Your task to perform on an android device: uninstall "Life360: Find Family & Friends" Image 0: 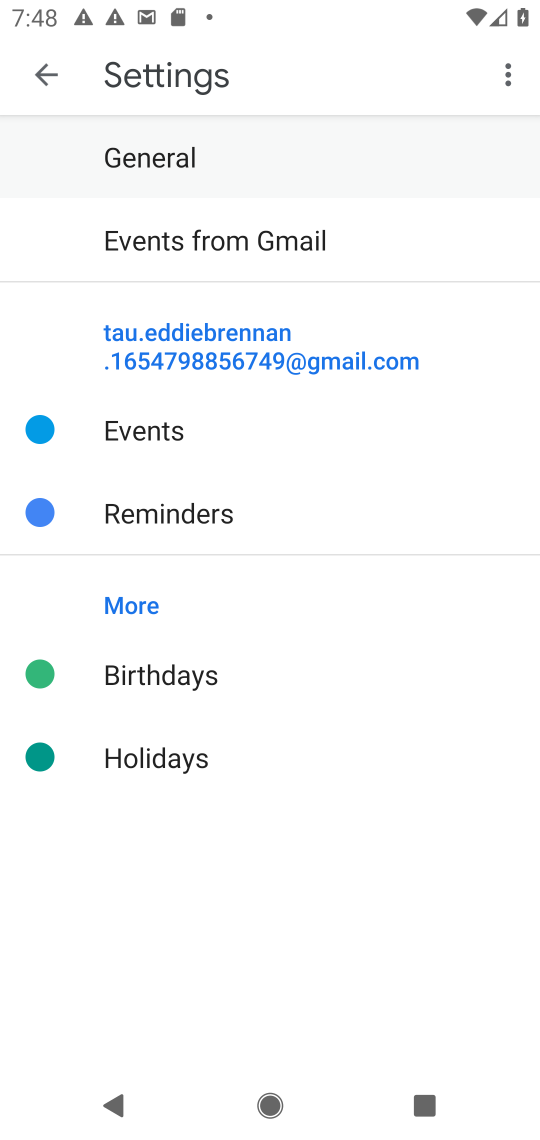
Step 0: press home button
Your task to perform on an android device: uninstall "Life360: Find Family & Friends" Image 1: 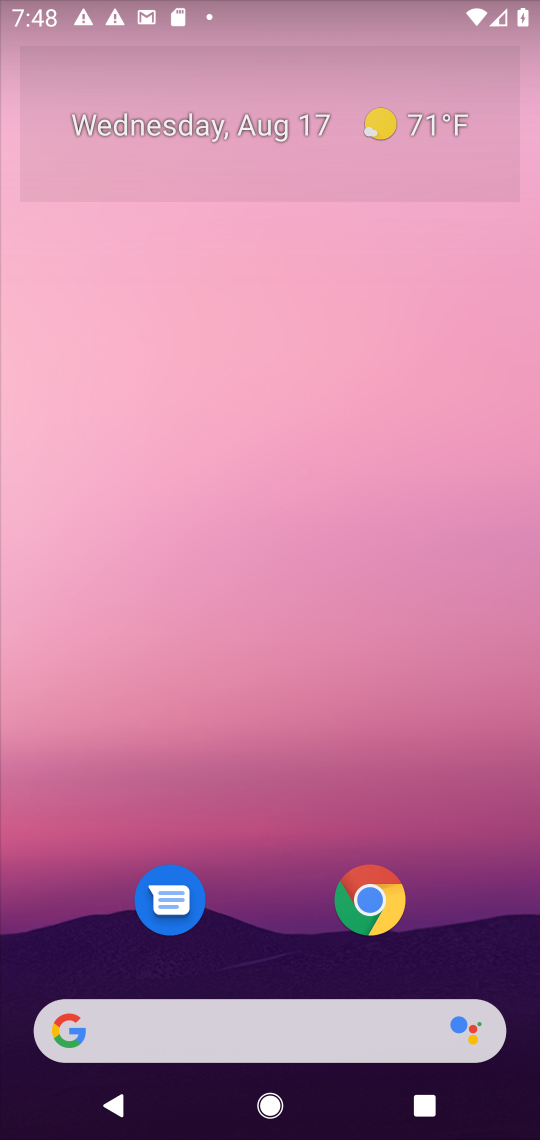
Step 1: drag from (32, 675) to (54, 115)
Your task to perform on an android device: uninstall "Life360: Find Family & Friends" Image 2: 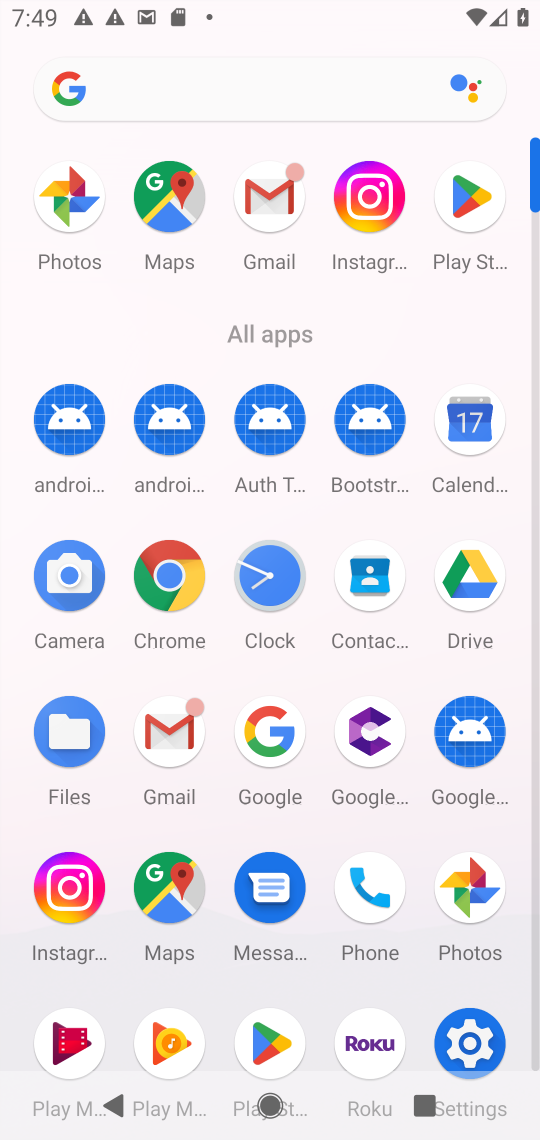
Step 2: click (460, 212)
Your task to perform on an android device: uninstall "Life360: Find Family & Friends" Image 3: 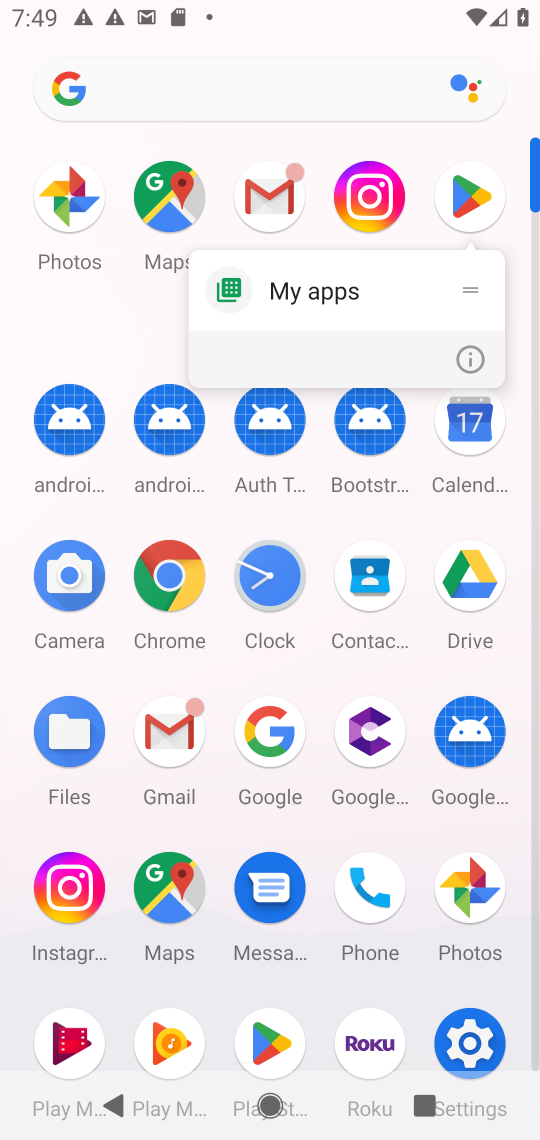
Step 3: click (462, 212)
Your task to perform on an android device: uninstall "Life360: Find Family & Friends" Image 4: 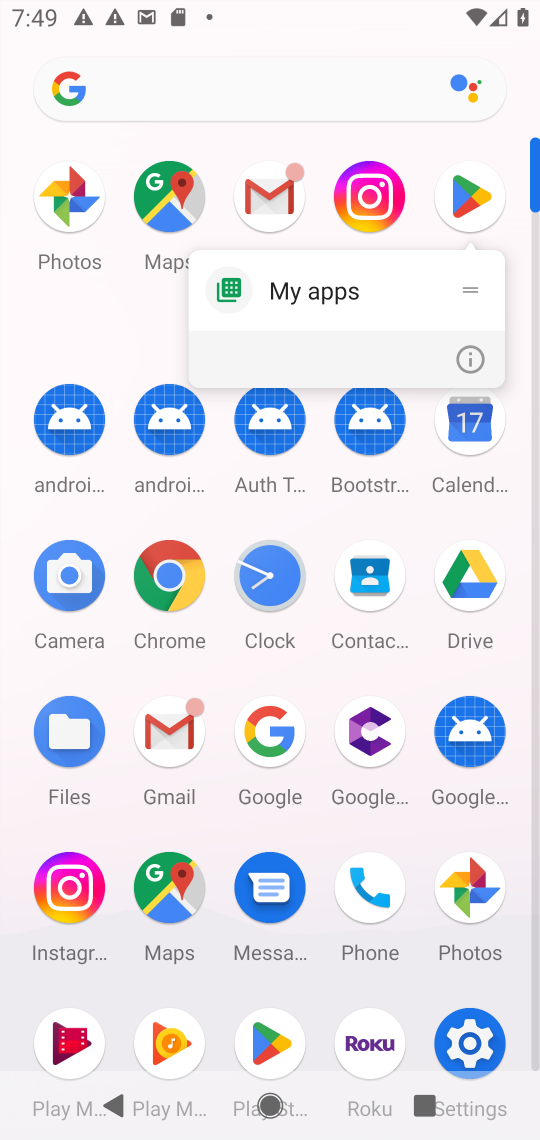
Step 4: click (462, 212)
Your task to perform on an android device: uninstall "Life360: Find Family & Friends" Image 5: 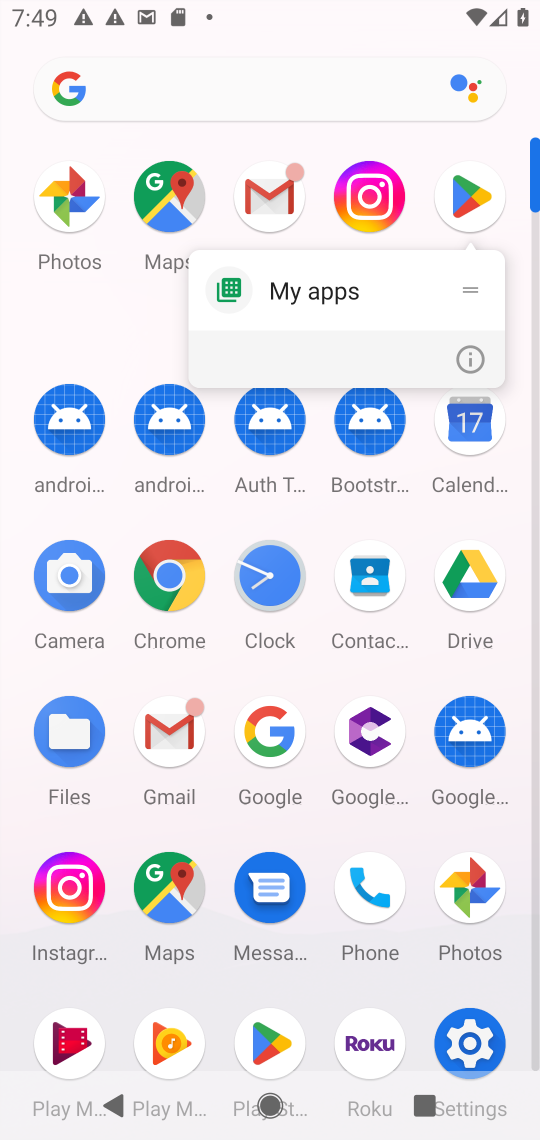
Step 5: click (462, 212)
Your task to perform on an android device: uninstall "Life360: Find Family & Friends" Image 6: 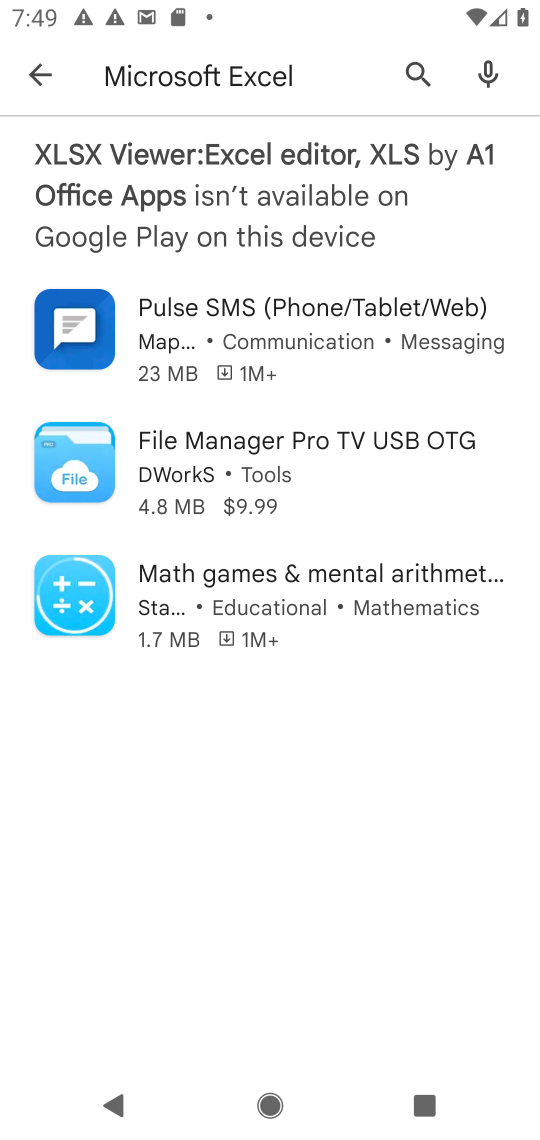
Step 6: click (33, 73)
Your task to perform on an android device: uninstall "Life360: Find Family & Friends" Image 7: 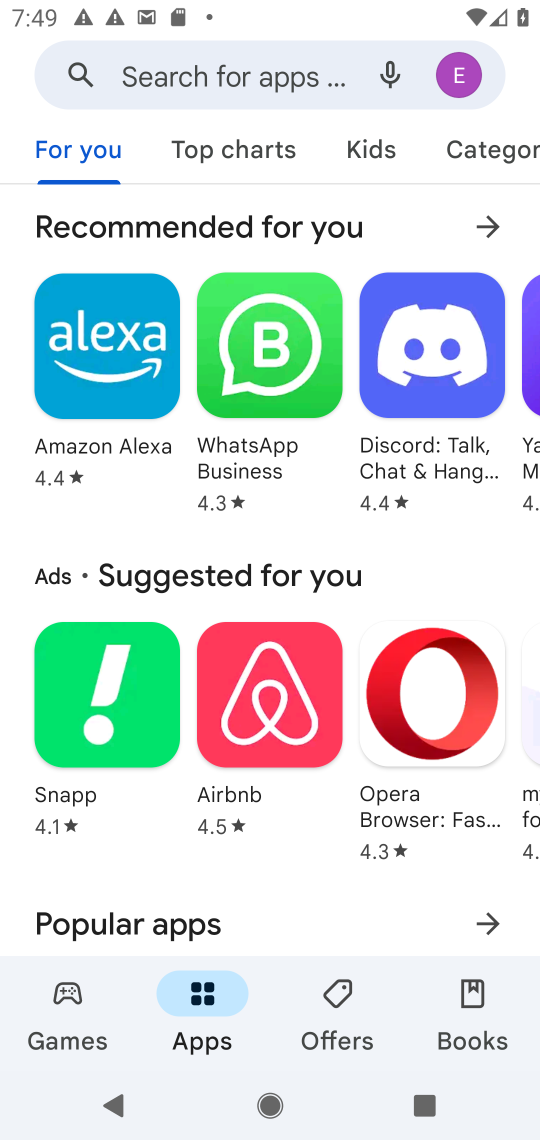
Step 7: click (194, 81)
Your task to perform on an android device: uninstall "Life360: Find Family & Friends" Image 8: 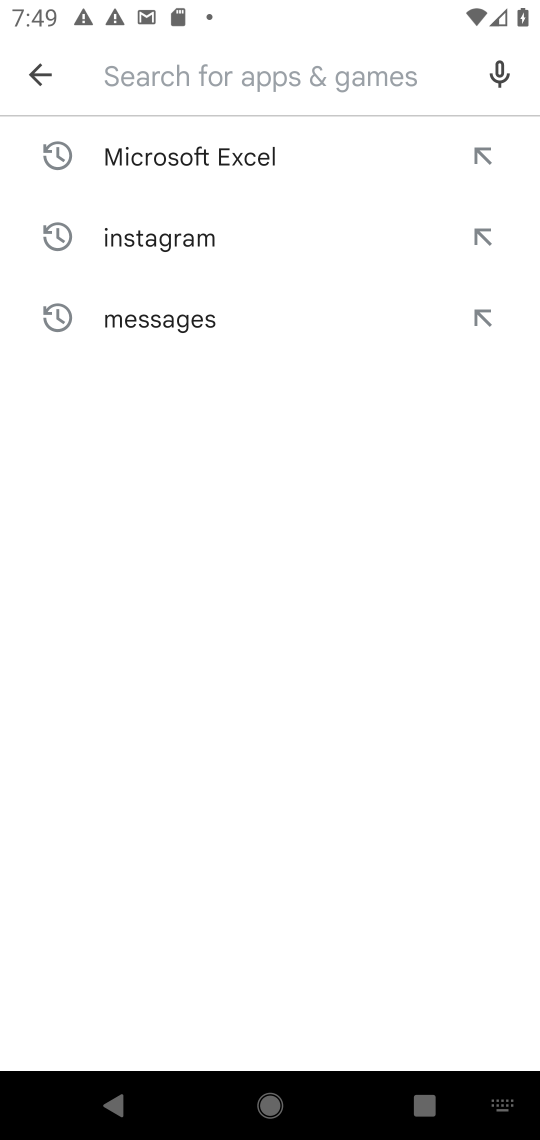
Step 8: type "Life360: Find Family & Friends"
Your task to perform on an android device: uninstall "Life360: Find Family & Friends" Image 9: 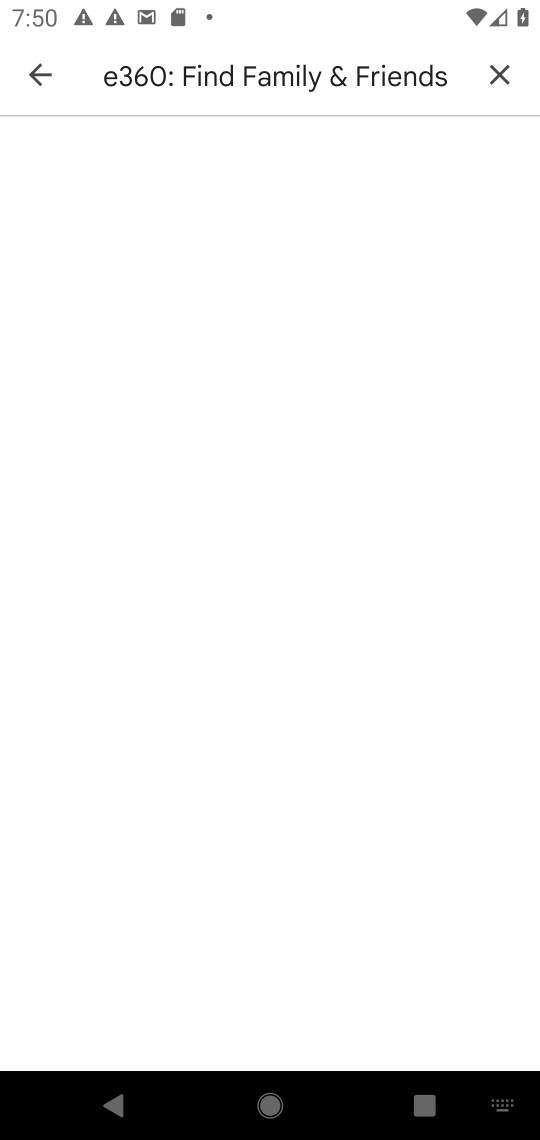
Step 9: press enter
Your task to perform on an android device: uninstall "Life360: Find Family & Friends" Image 10: 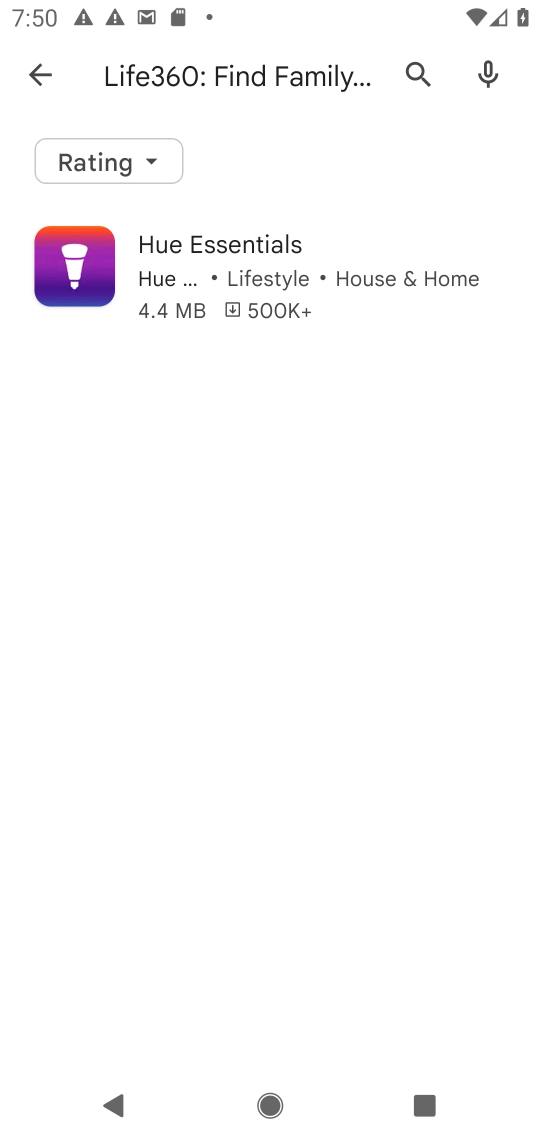
Step 10: task complete